Your task to perform on an android device: choose inbox layout in the gmail app Image 0: 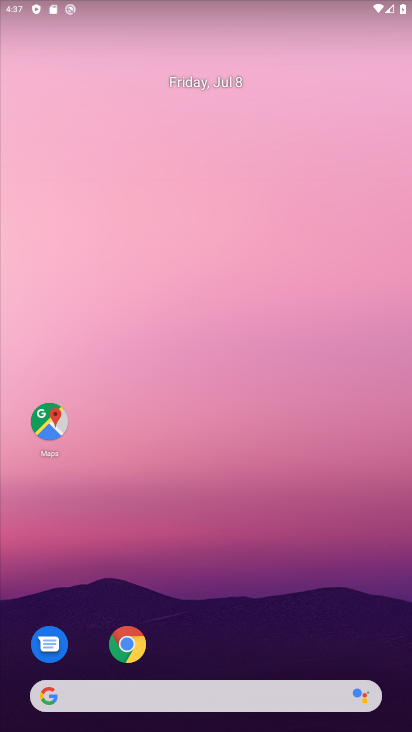
Step 0: drag from (329, 574) to (268, 1)
Your task to perform on an android device: choose inbox layout in the gmail app Image 1: 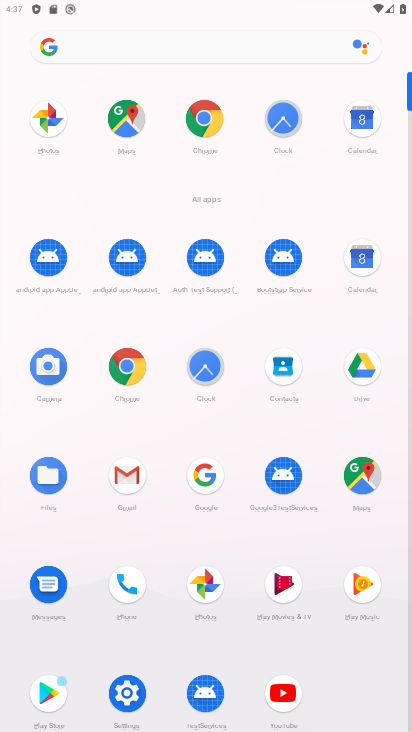
Step 1: click (118, 471)
Your task to perform on an android device: choose inbox layout in the gmail app Image 2: 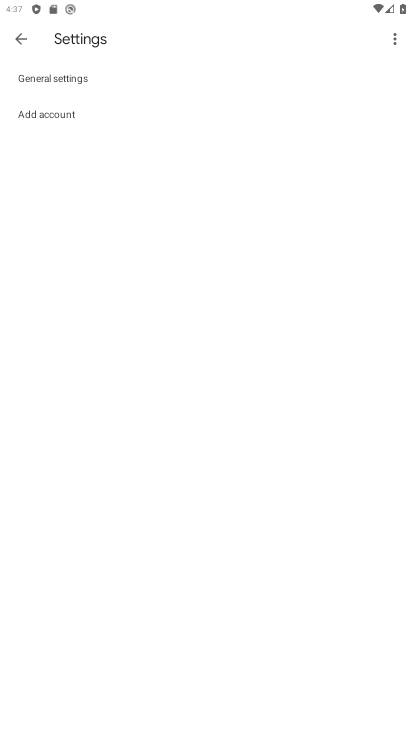
Step 2: click (18, 38)
Your task to perform on an android device: choose inbox layout in the gmail app Image 3: 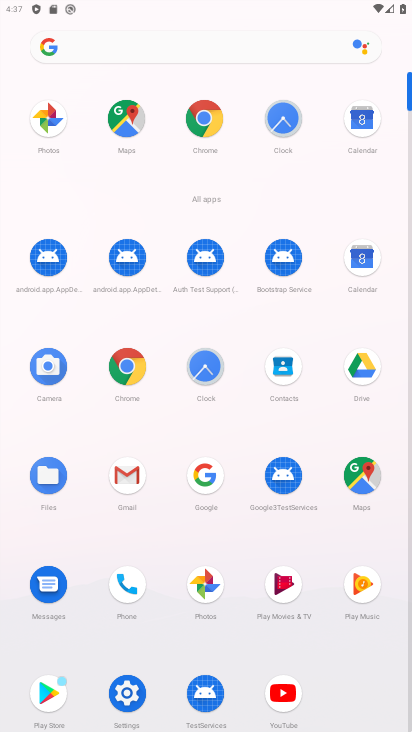
Step 3: click (130, 476)
Your task to perform on an android device: choose inbox layout in the gmail app Image 4: 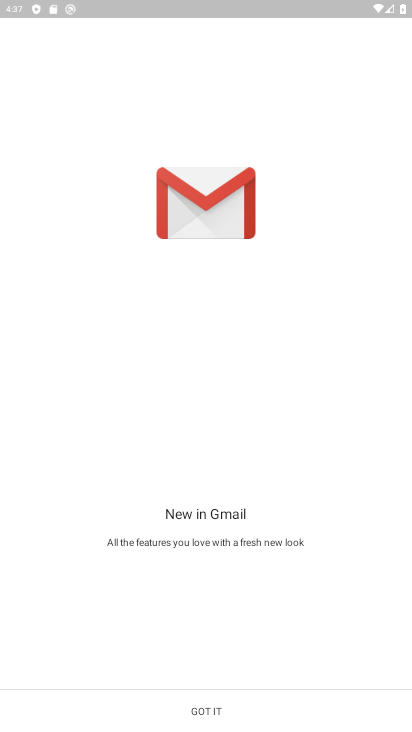
Step 4: click (269, 714)
Your task to perform on an android device: choose inbox layout in the gmail app Image 5: 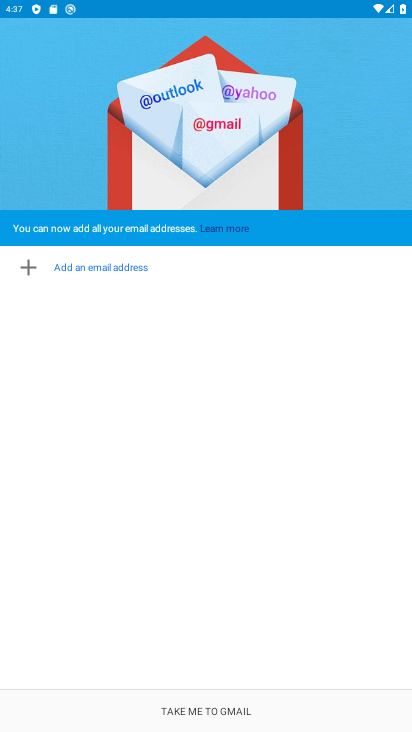
Step 5: click (265, 704)
Your task to perform on an android device: choose inbox layout in the gmail app Image 6: 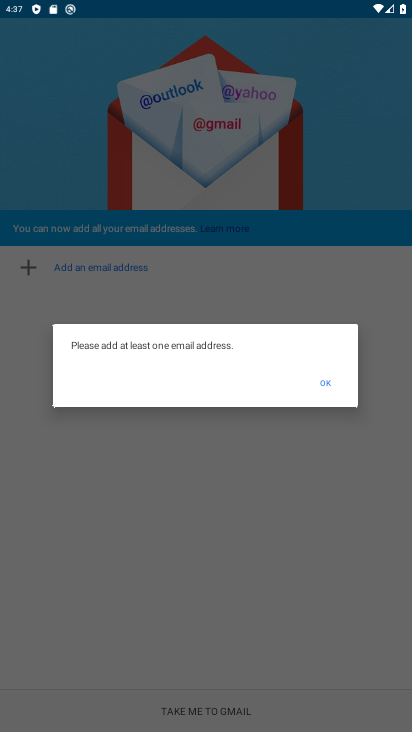
Step 6: task complete